Your task to perform on an android device: Open the calendar app, open the side menu, and click the "Day" option Image 0: 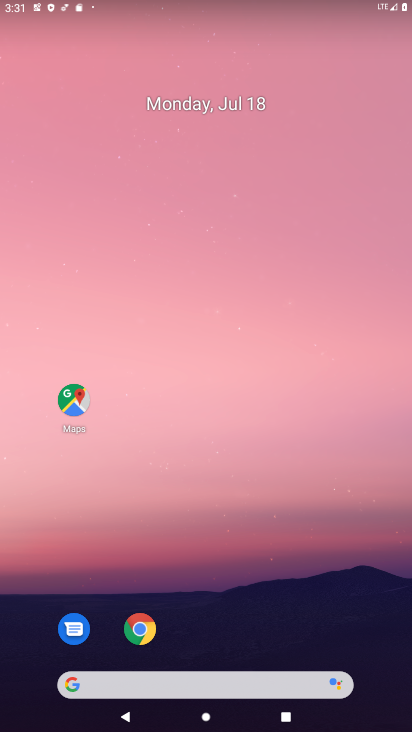
Step 0: drag from (232, 585) to (243, 152)
Your task to perform on an android device: Open the calendar app, open the side menu, and click the "Day" option Image 1: 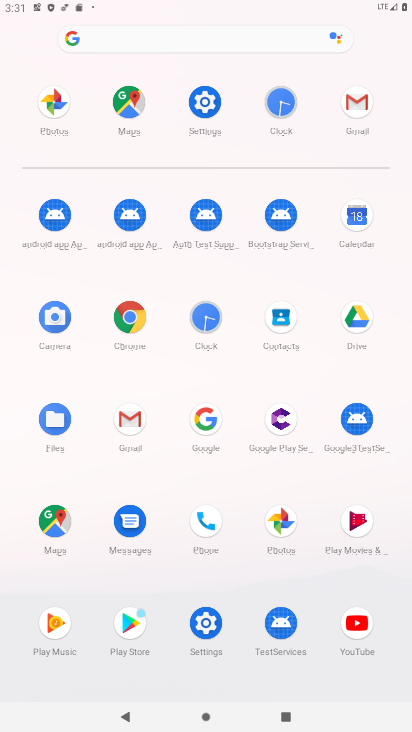
Step 1: click (359, 230)
Your task to perform on an android device: Open the calendar app, open the side menu, and click the "Day" option Image 2: 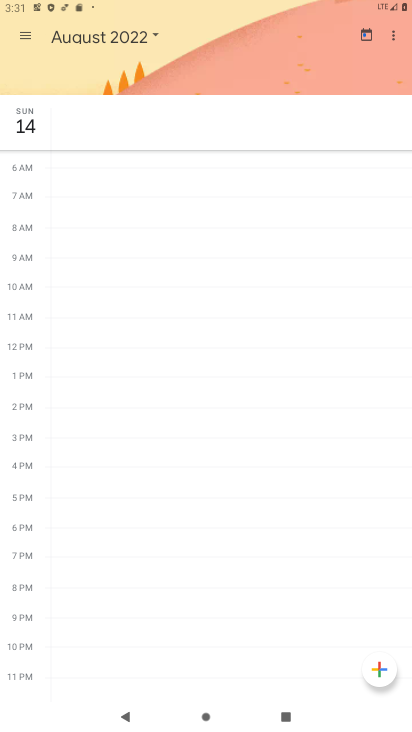
Step 2: click (25, 37)
Your task to perform on an android device: Open the calendar app, open the side menu, and click the "Day" option Image 3: 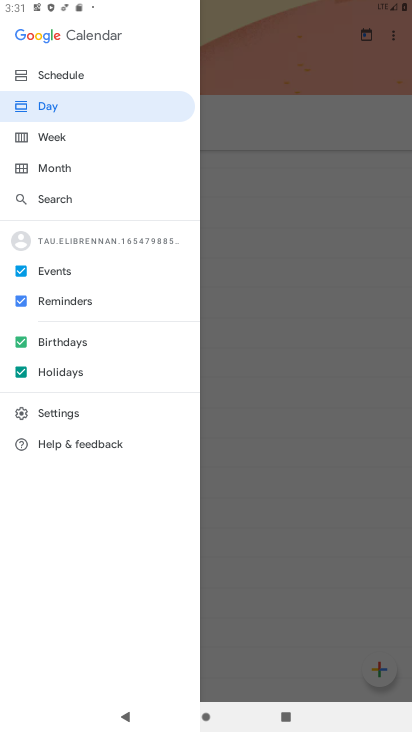
Step 3: click (55, 113)
Your task to perform on an android device: Open the calendar app, open the side menu, and click the "Day" option Image 4: 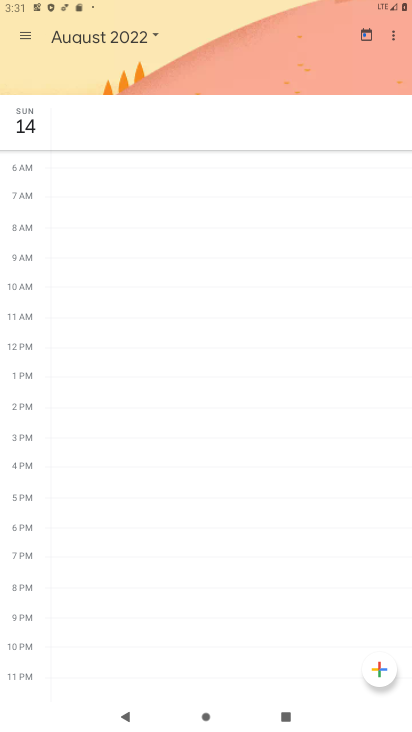
Step 4: task complete